Your task to perform on an android device: turn off notifications settings in the gmail app Image 0: 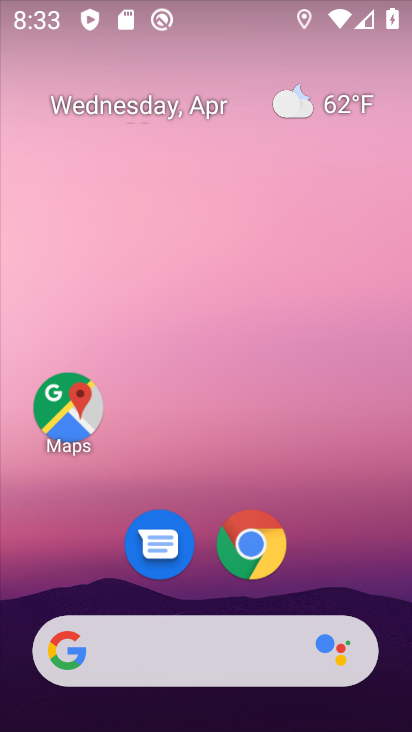
Step 0: drag from (295, 578) to (168, 143)
Your task to perform on an android device: turn off notifications settings in the gmail app Image 1: 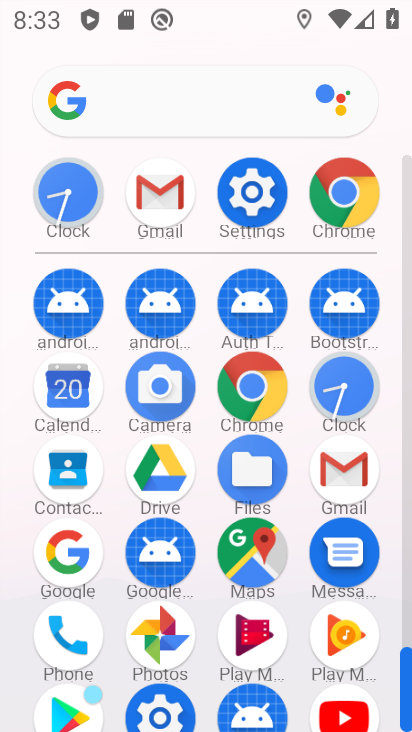
Step 1: click (346, 478)
Your task to perform on an android device: turn off notifications settings in the gmail app Image 2: 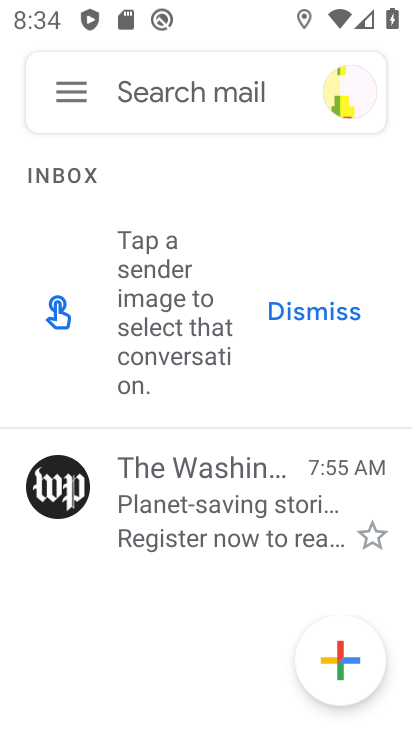
Step 2: click (67, 99)
Your task to perform on an android device: turn off notifications settings in the gmail app Image 3: 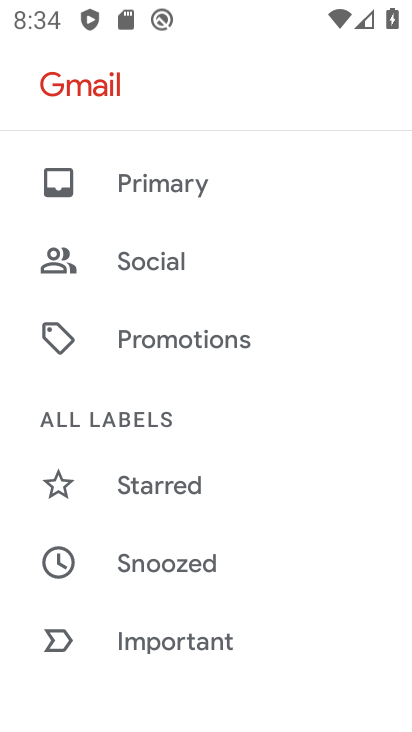
Step 3: drag from (217, 651) to (175, 155)
Your task to perform on an android device: turn off notifications settings in the gmail app Image 4: 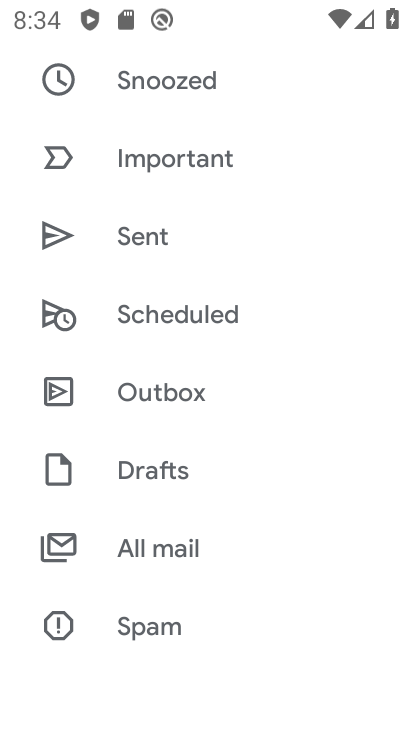
Step 4: drag from (149, 637) to (137, 317)
Your task to perform on an android device: turn off notifications settings in the gmail app Image 5: 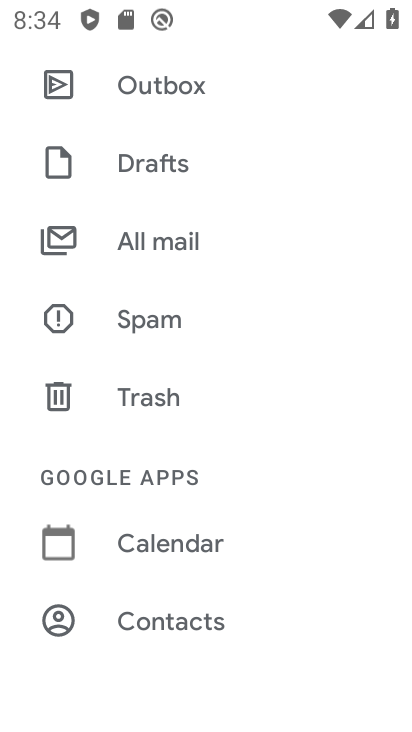
Step 5: drag from (178, 617) to (194, 248)
Your task to perform on an android device: turn off notifications settings in the gmail app Image 6: 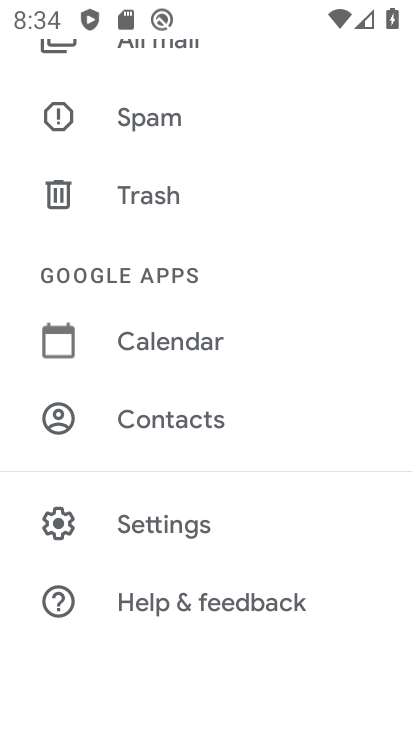
Step 6: click (163, 525)
Your task to perform on an android device: turn off notifications settings in the gmail app Image 7: 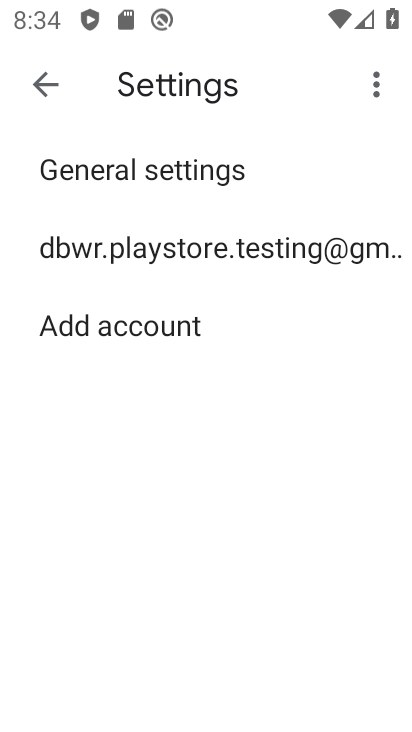
Step 7: click (217, 258)
Your task to perform on an android device: turn off notifications settings in the gmail app Image 8: 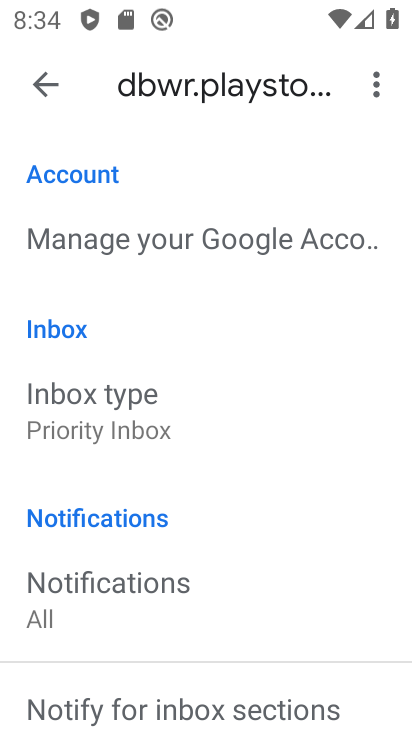
Step 8: drag from (118, 622) to (116, 294)
Your task to perform on an android device: turn off notifications settings in the gmail app Image 9: 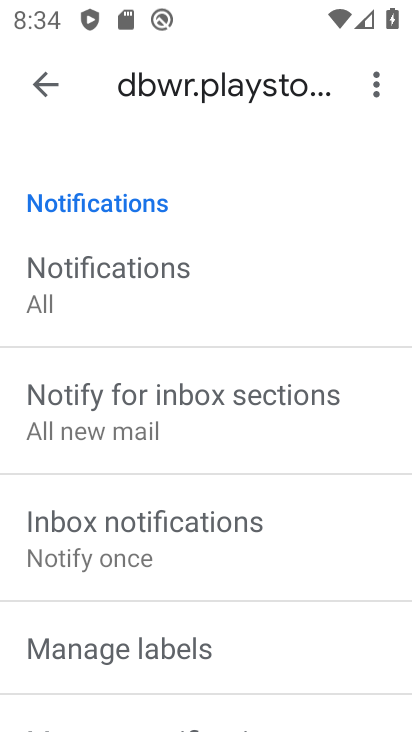
Step 9: drag from (147, 634) to (142, 411)
Your task to perform on an android device: turn off notifications settings in the gmail app Image 10: 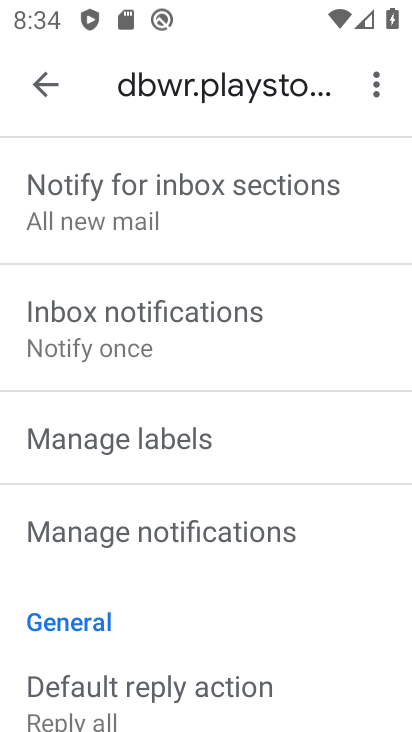
Step 10: click (154, 533)
Your task to perform on an android device: turn off notifications settings in the gmail app Image 11: 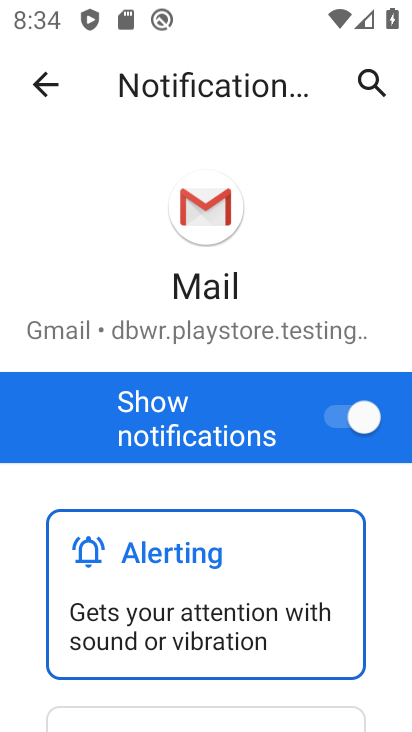
Step 11: click (354, 416)
Your task to perform on an android device: turn off notifications settings in the gmail app Image 12: 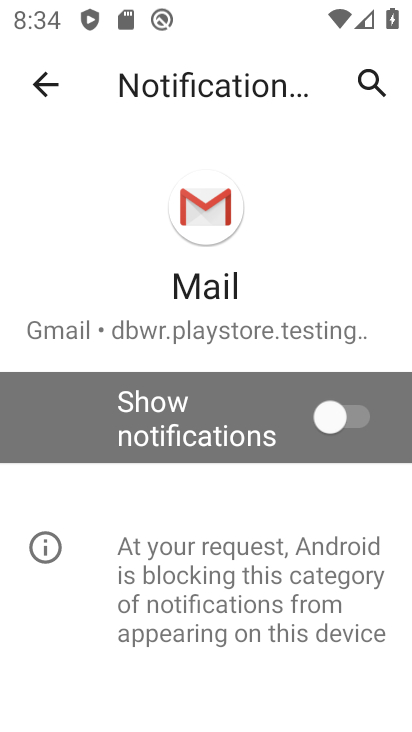
Step 12: task complete